Your task to perform on an android device: stop showing notifications on the lock screen Image 0: 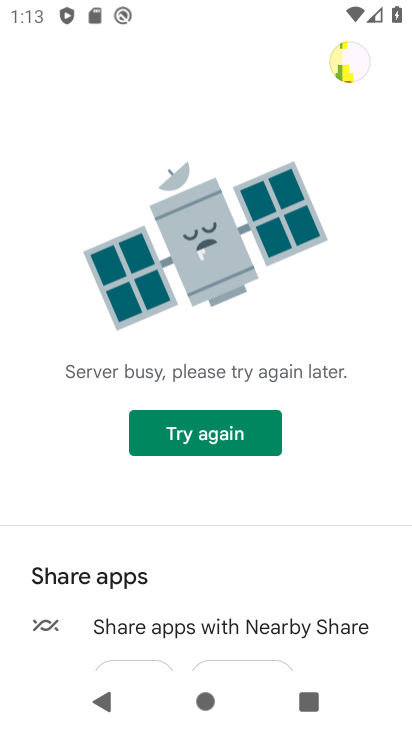
Step 0: press home button
Your task to perform on an android device: stop showing notifications on the lock screen Image 1: 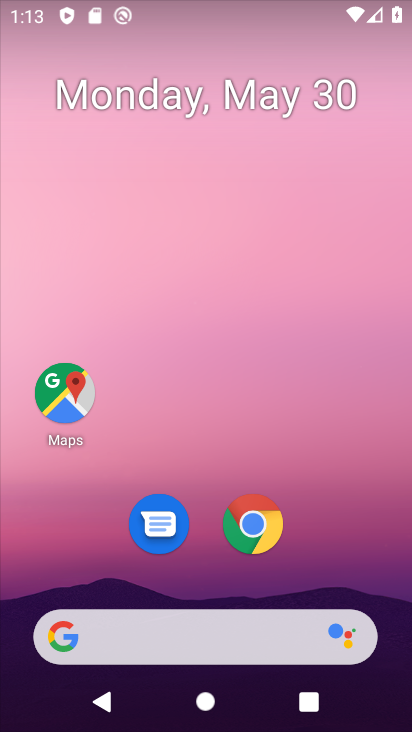
Step 1: drag from (332, 470) to (263, 16)
Your task to perform on an android device: stop showing notifications on the lock screen Image 2: 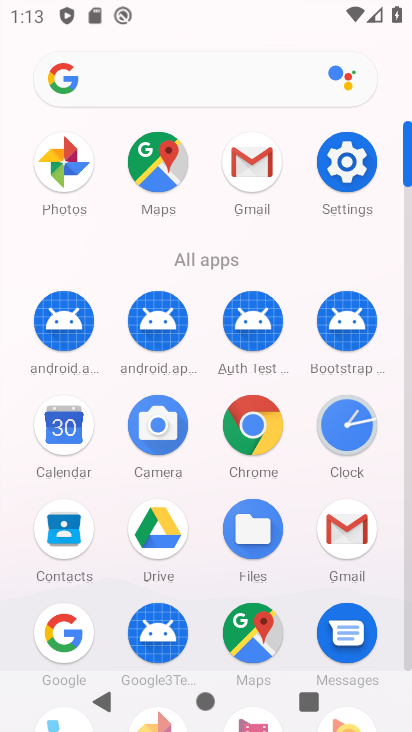
Step 2: click (338, 285)
Your task to perform on an android device: stop showing notifications on the lock screen Image 3: 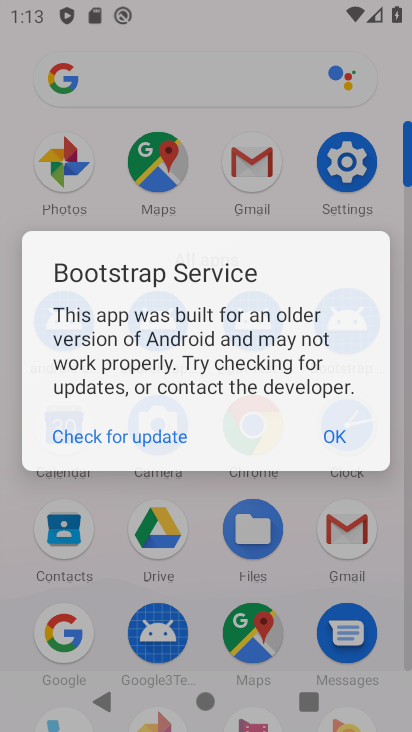
Step 3: click (341, 177)
Your task to perform on an android device: stop showing notifications on the lock screen Image 4: 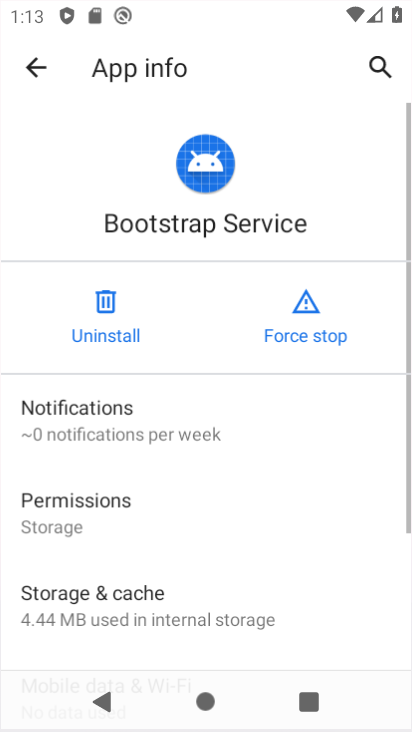
Step 4: click (343, 174)
Your task to perform on an android device: stop showing notifications on the lock screen Image 5: 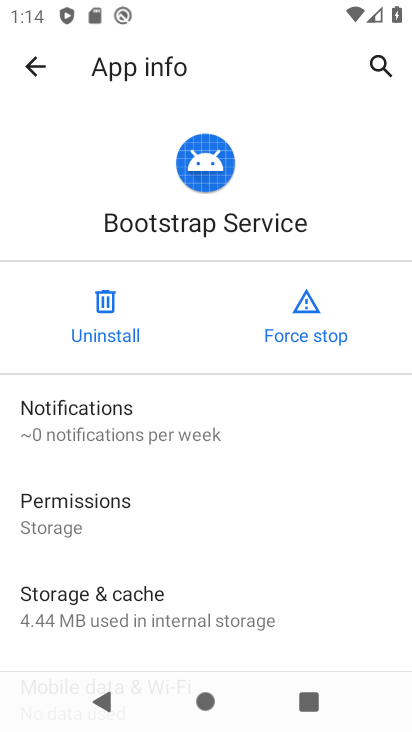
Step 5: click (36, 61)
Your task to perform on an android device: stop showing notifications on the lock screen Image 6: 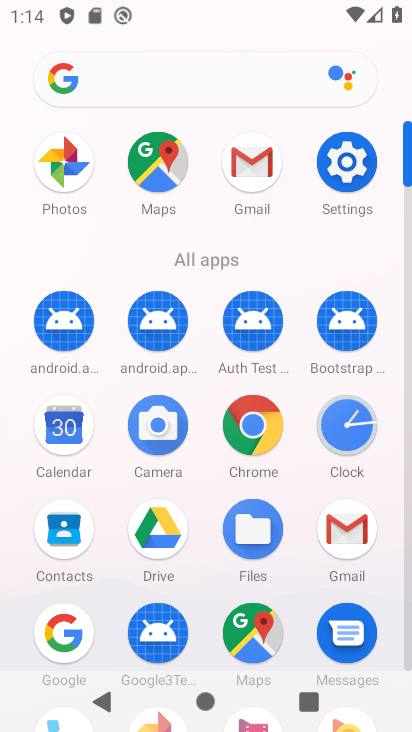
Step 6: click (350, 146)
Your task to perform on an android device: stop showing notifications on the lock screen Image 7: 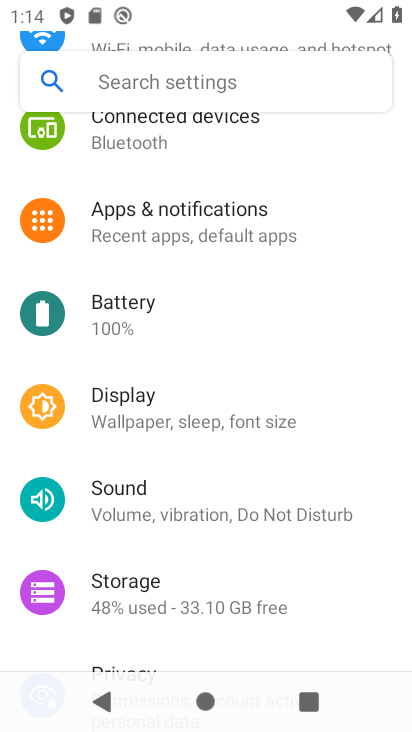
Step 7: click (264, 218)
Your task to perform on an android device: stop showing notifications on the lock screen Image 8: 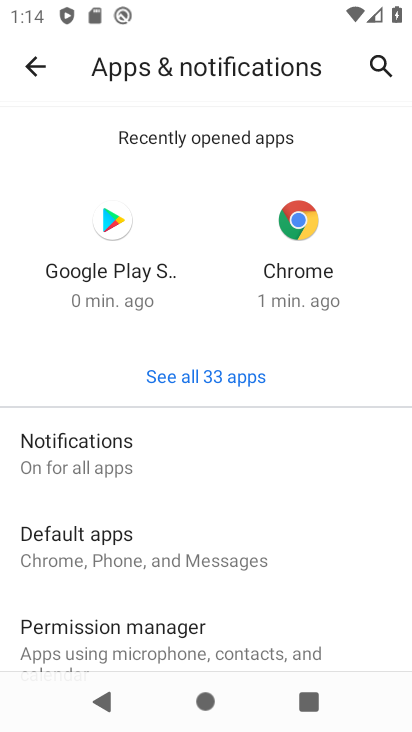
Step 8: click (187, 461)
Your task to perform on an android device: stop showing notifications on the lock screen Image 9: 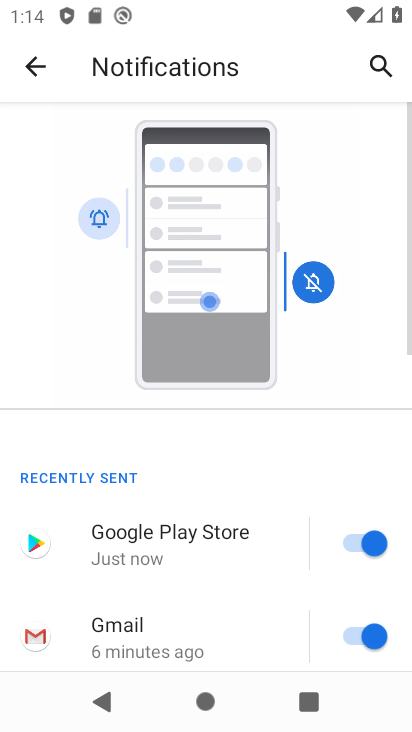
Step 9: drag from (244, 579) to (284, 30)
Your task to perform on an android device: stop showing notifications on the lock screen Image 10: 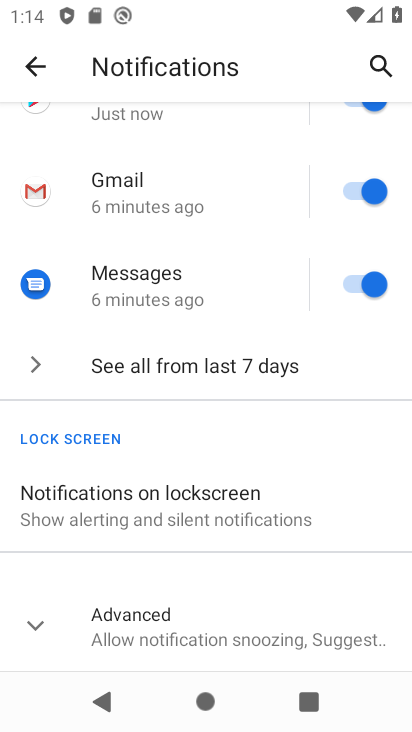
Step 10: click (188, 511)
Your task to perform on an android device: stop showing notifications on the lock screen Image 11: 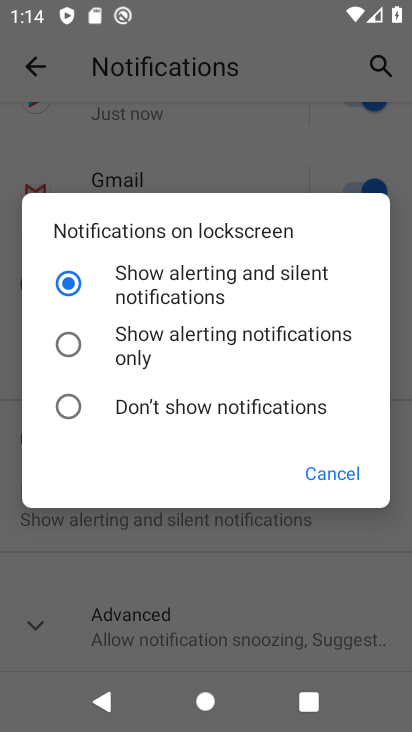
Step 11: click (72, 404)
Your task to perform on an android device: stop showing notifications on the lock screen Image 12: 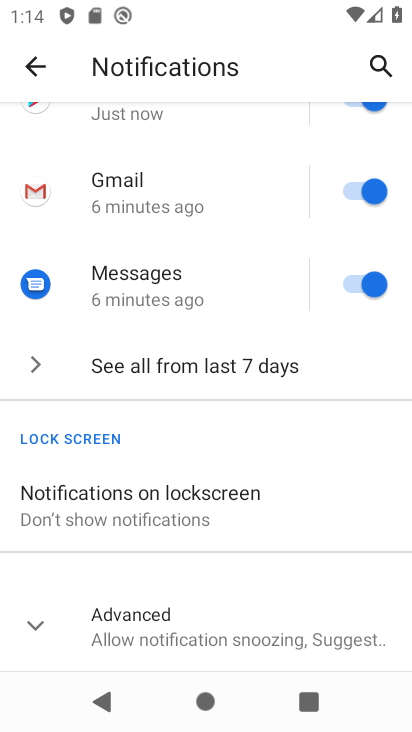
Step 12: task complete